Your task to perform on an android device: Go to settings Image 0: 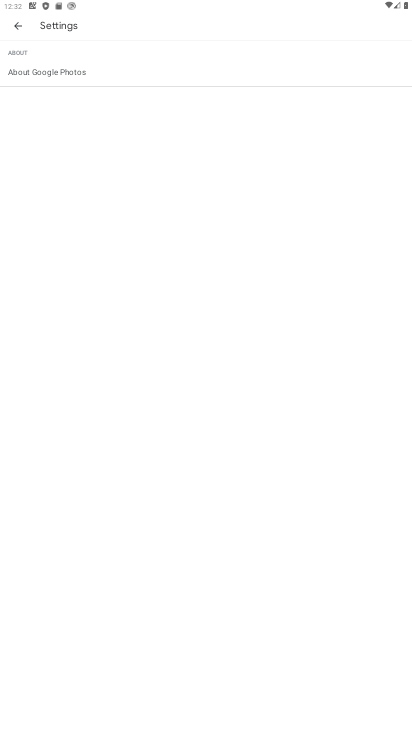
Step 0: press home button
Your task to perform on an android device: Go to settings Image 1: 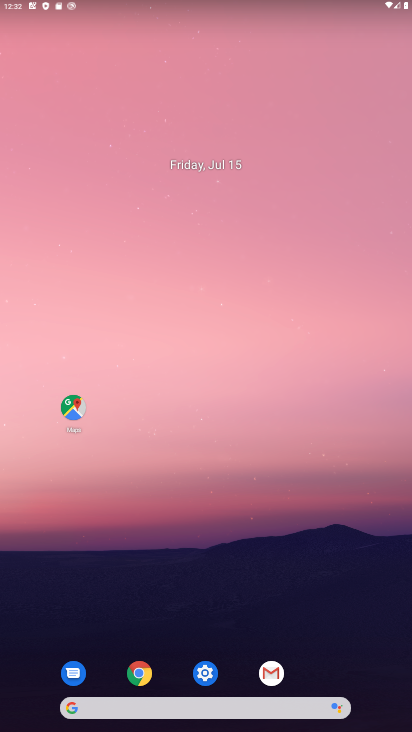
Step 1: click (213, 672)
Your task to perform on an android device: Go to settings Image 2: 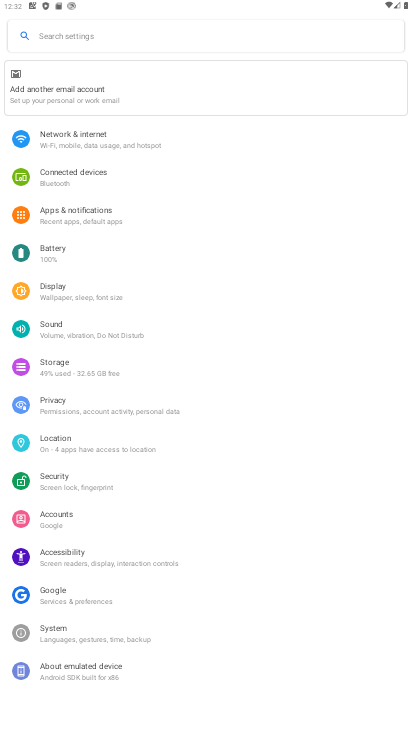
Step 2: task complete